Your task to perform on an android device: Open Yahoo.com Image 0: 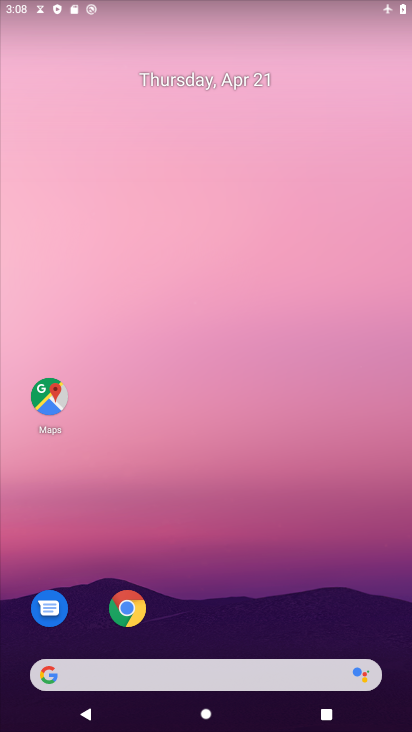
Step 0: drag from (307, 610) to (279, 252)
Your task to perform on an android device: Open Yahoo.com Image 1: 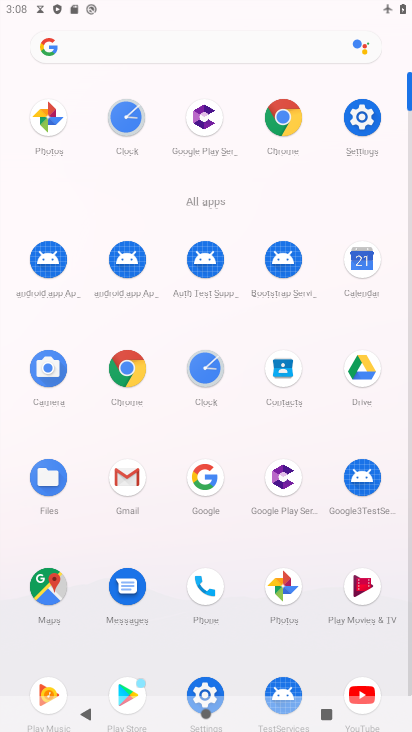
Step 1: click (284, 112)
Your task to perform on an android device: Open Yahoo.com Image 2: 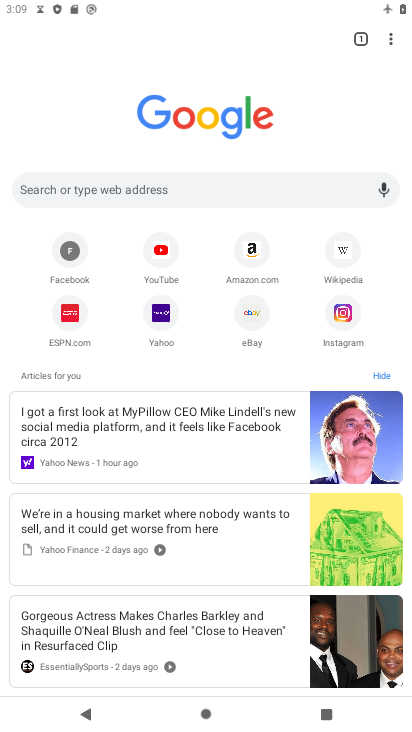
Step 2: click (176, 339)
Your task to perform on an android device: Open Yahoo.com Image 3: 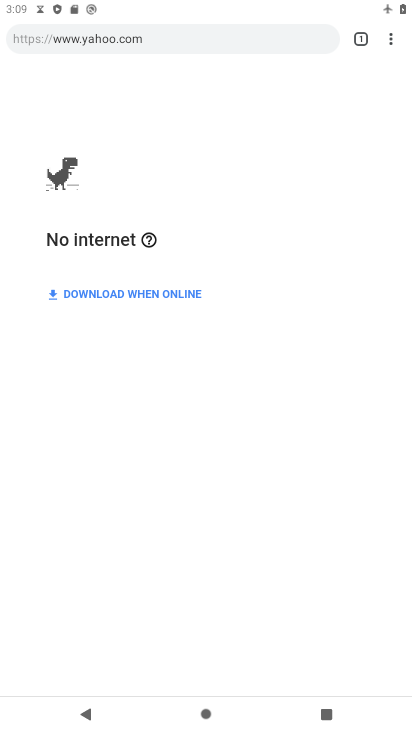
Step 3: task complete